Your task to perform on an android device: Open Google Chrome and click the shortcut for Amazon.com Image 0: 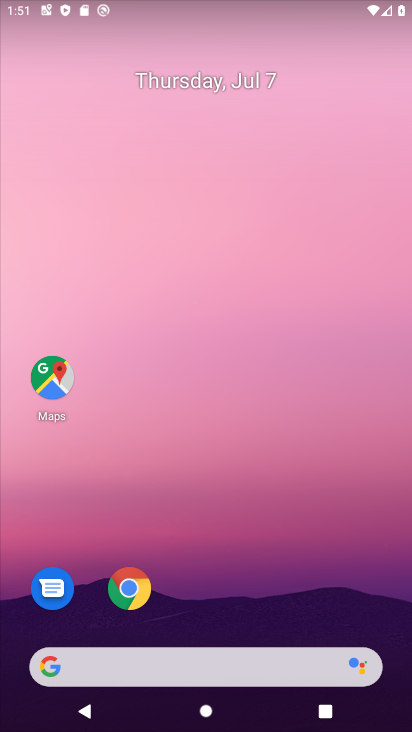
Step 0: click (138, 583)
Your task to perform on an android device: Open Google Chrome and click the shortcut for Amazon.com Image 1: 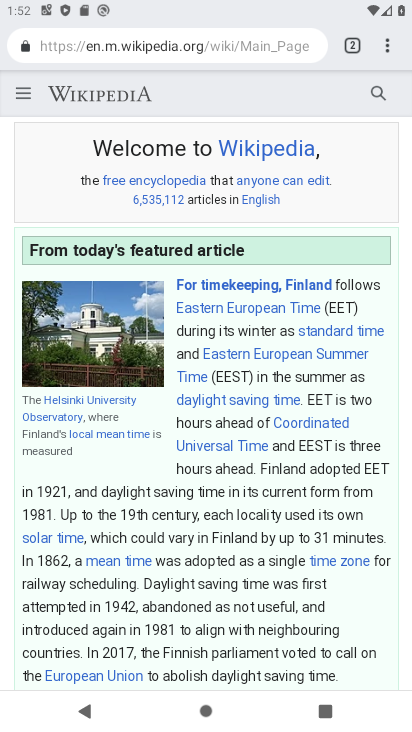
Step 1: click (350, 42)
Your task to perform on an android device: Open Google Chrome and click the shortcut for Amazon.com Image 2: 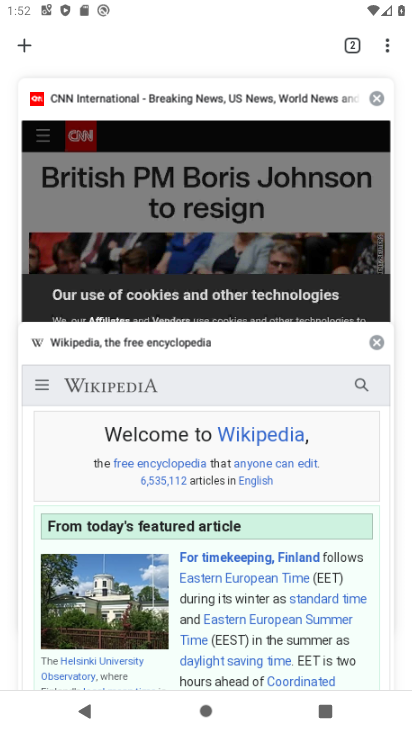
Step 2: click (12, 43)
Your task to perform on an android device: Open Google Chrome and click the shortcut for Amazon.com Image 3: 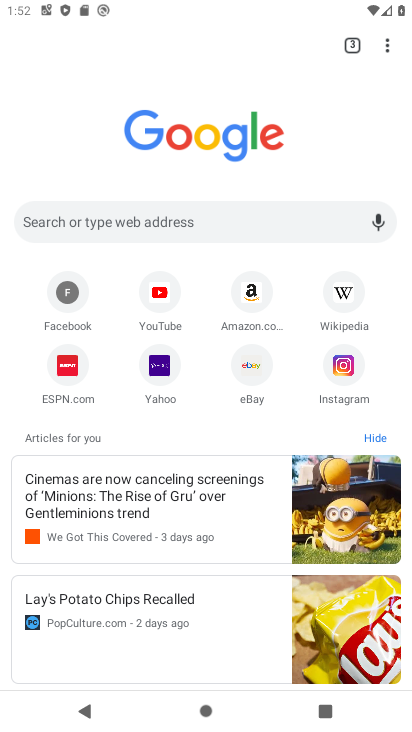
Step 3: click (251, 294)
Your task to perform on an android device: Open Google Chrome and click the shortcut for Amazon.com Image 4: 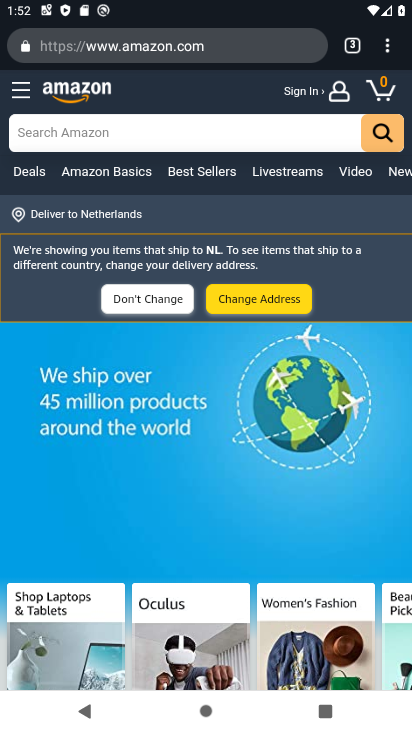
Step 4: task complete